Your task to perform on an android device: find snoozed emails in the gmail app Image 0: 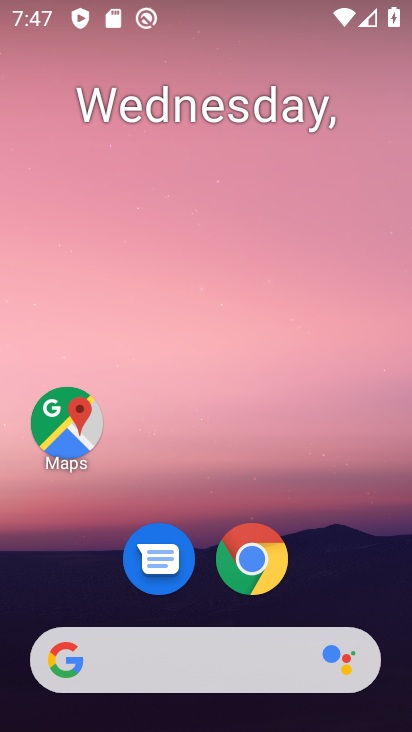
Step 0: drag from (189, 559) to (214, 3)
Your task to perform on an android device: find snoozed emails in the gmail app Image 1: 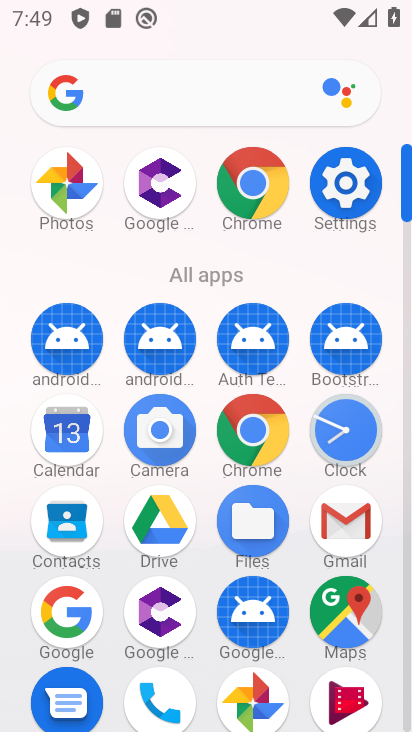
Step 1: click (346, 520)
Your task to perform on an android device: find snoozed emails in the gmail app Image 2: 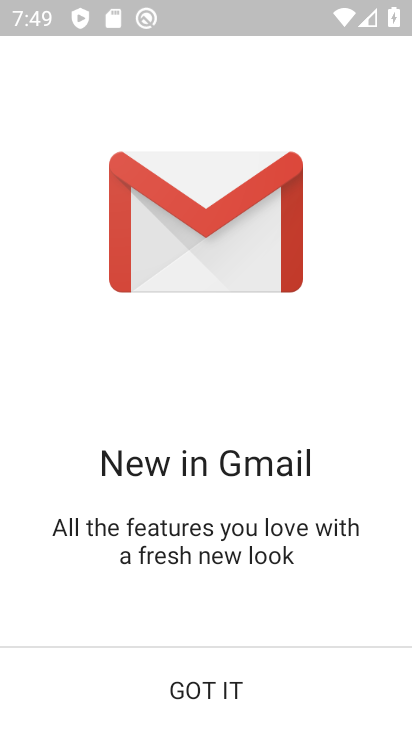
Step 2: click (225, 694)
Your task to perform on an android device: find snoozed emails in the gmail app Image 3: 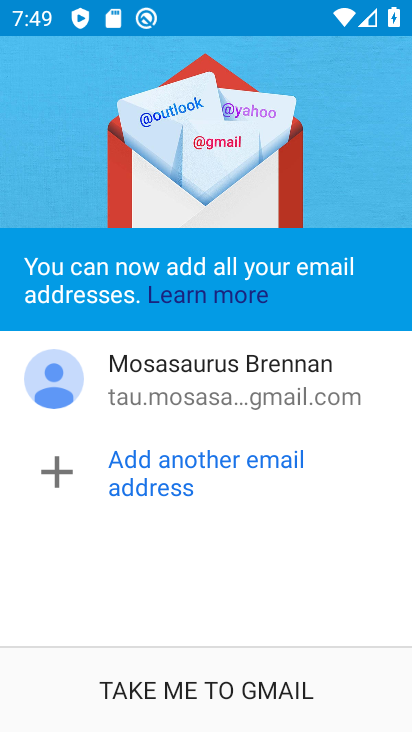
Step 3: click (195, 688)
Your task to perform on an android device: find snoozed emails in the gmail app Image 4: 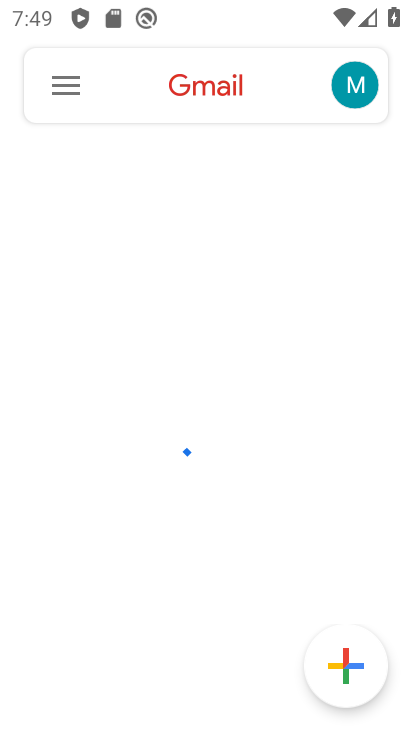
Step 4: click (69, 99)
Your task to perform on an android device: find snoozed emails in the gmail app Image 5: 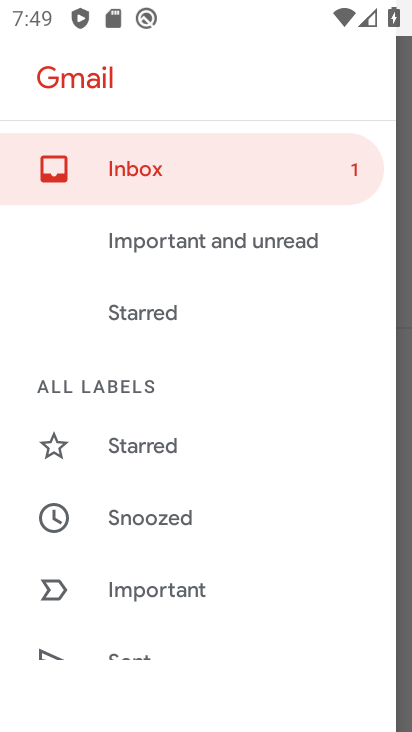
Step 5: click (163, 515)
Your task to perform on an android device: find snoozed emails in the gmail app Image 6: 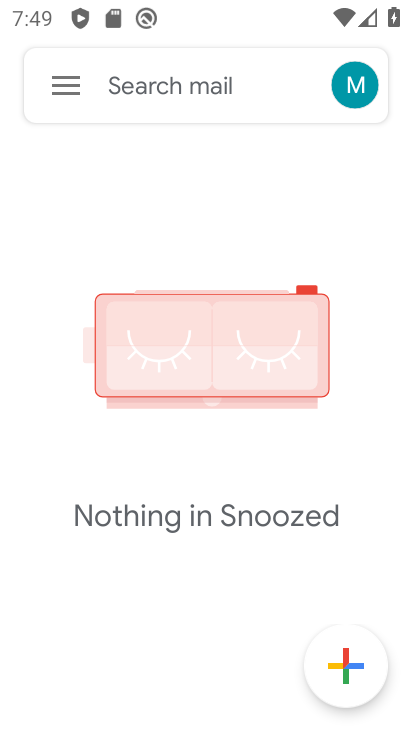
Step 6: task complete